Your task to perform on an android device: Open Reddit.com Image 0: 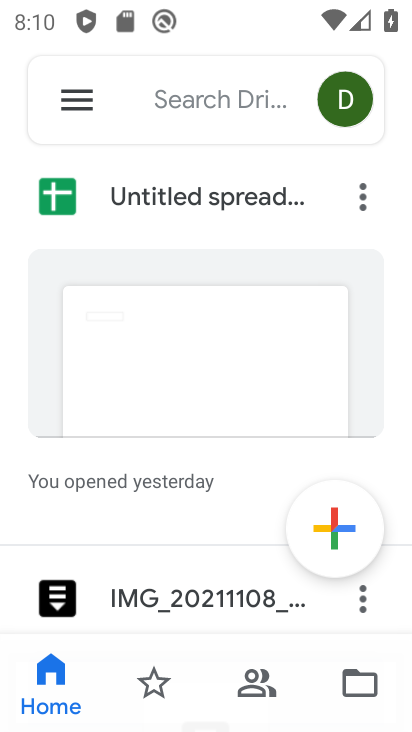
Step 0: press home button
Your task to perform on an android device: Open Reddit.com Image 1: 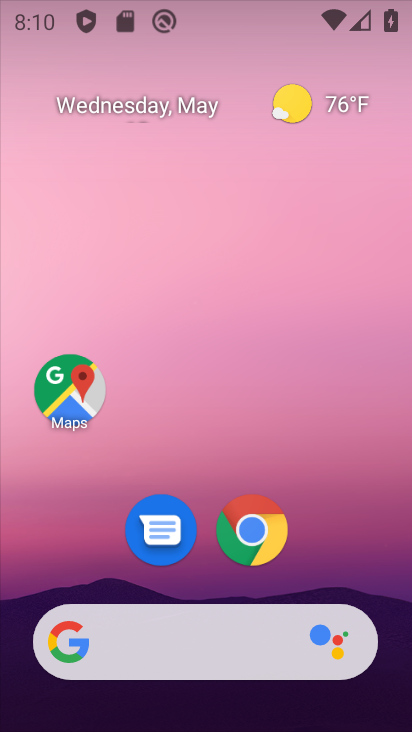
Step 1: drag from (387, 556) to (370, 301)
Your task to perform on an android device: Open Reddit.com Image 2: 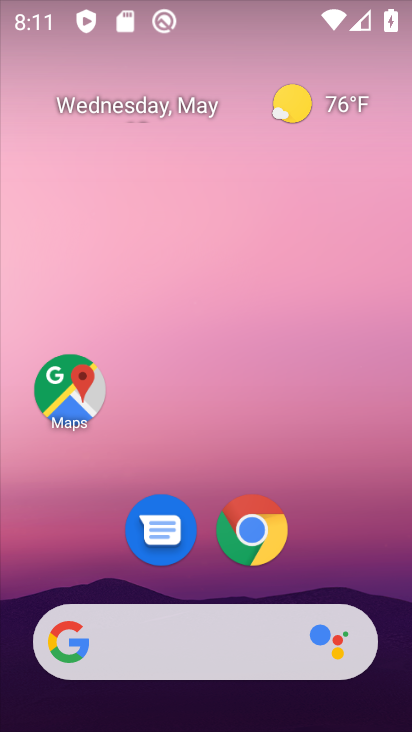
Step 2: drag from (348, 482) to (353, 181)
Your task to perform on an android device: Open Reddit.com Image 3: 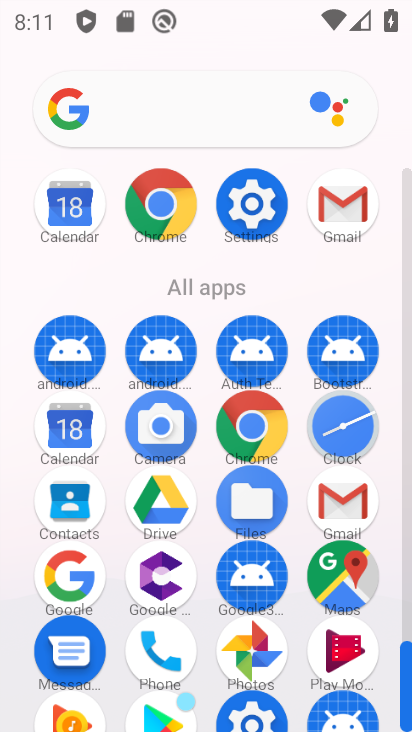
Step 3: click (149, 193)
Your task to perform on an android device: Open Reddit.com Image 4: 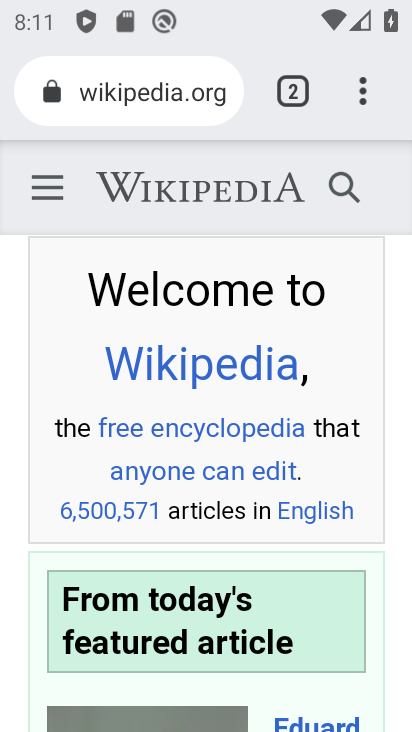
Step 4: click (285, 78)
Your task to perform on an android device: Open Reddit.com Image 5: 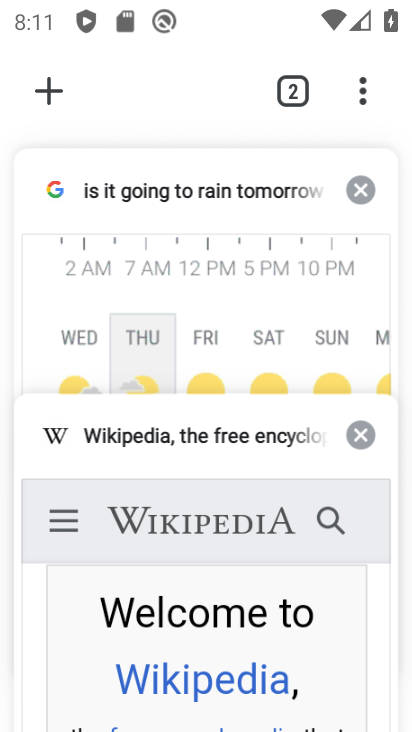
Step 5: click (56, 100)
Your task to perform on an android device: Open Reddit.com Image 6: 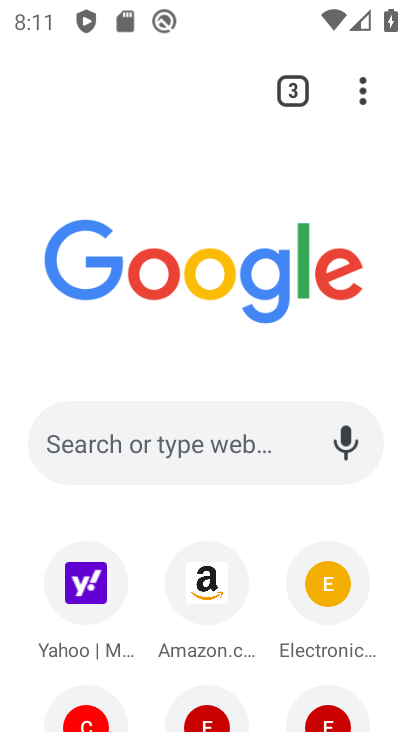
Step 6: click (205, 436)
Your task to perform on an android device: Open Reddit.com Image 7: 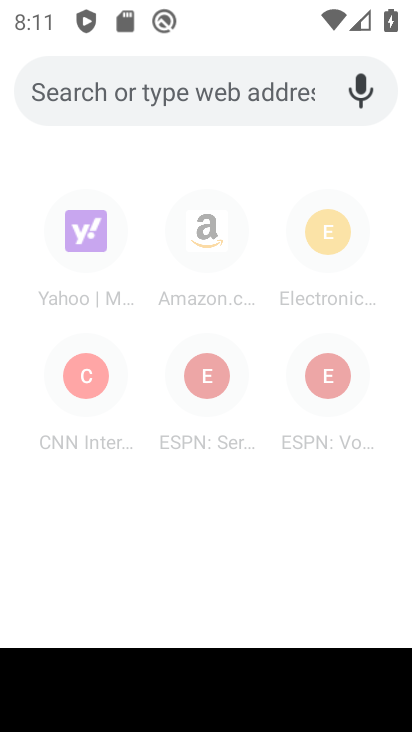
Step 7: type "reddit.com"
Your task to perform on an android device: Open Reddit.com Image 8: 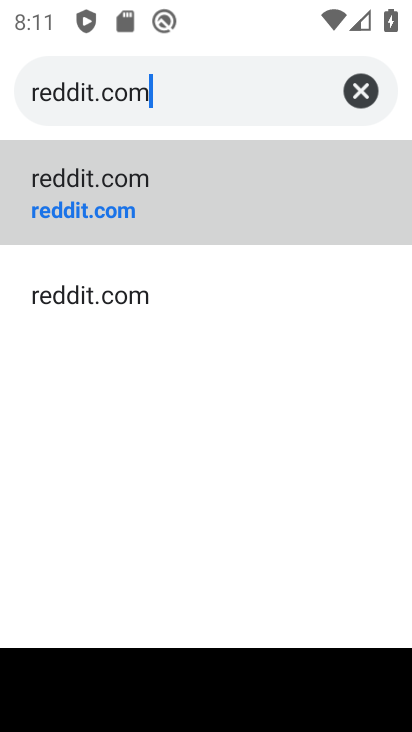
Step 8: click (189, 195)
Your task to perform on an android device: Open Reddit.com Image 9: 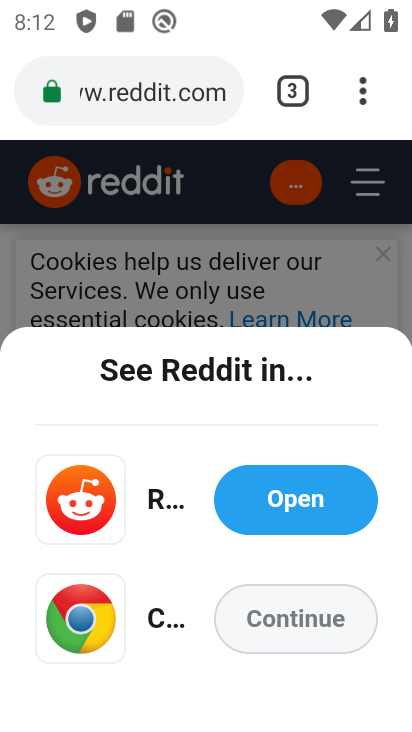
Step 9: task complete